Your task to perform on an android device: open app "Roku - Official Remote Control" (install if not already installed) and go to login screen Image 0: 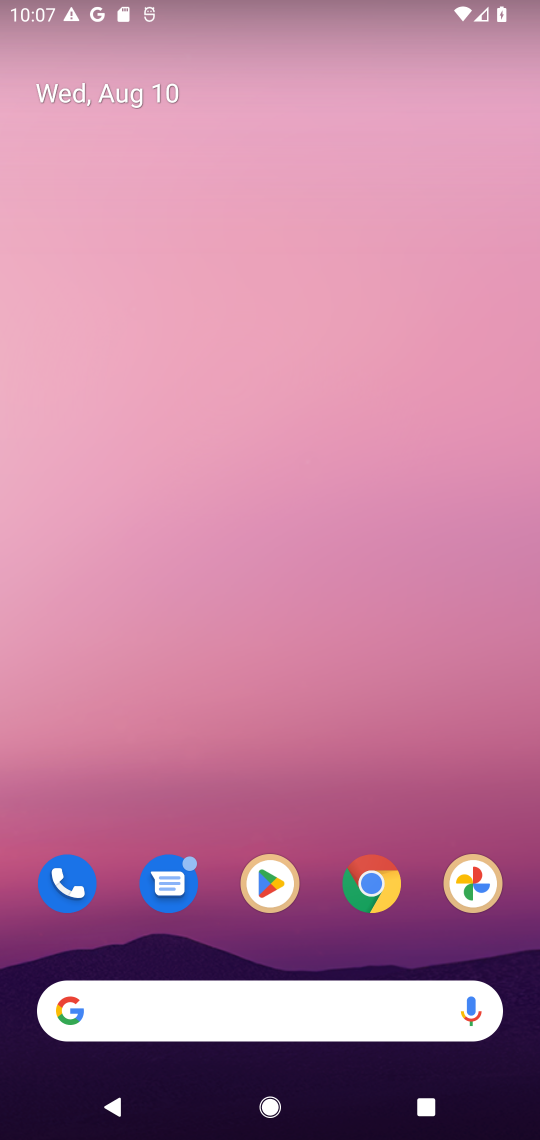
Step 0: press home button
Your task to perform on an android device: open app "Roku - Official Remote Control" (install if not already installed) and go to login screen Image 1: 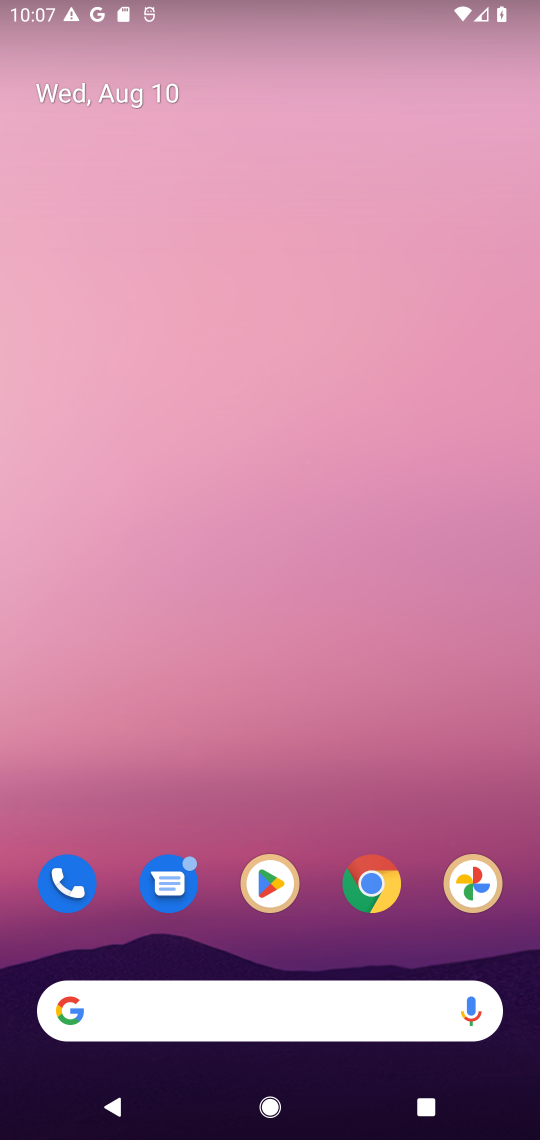
Step 1: drag from (404, 669) to (416, 71)
Your task to perform on an android device: open app "Roku - Official Remote Control" (install if not already installed) and go to login screen Image 2: 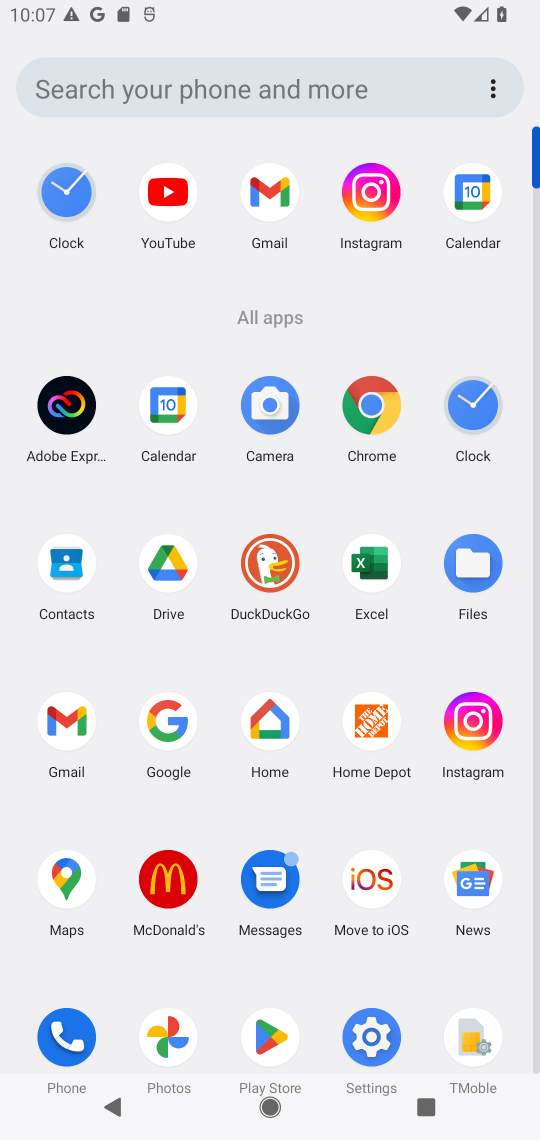
Step 2: click (265, 1026)
Your task to perform on an android device: open app "Roku - Official Remote Control" (install if not already installed) and go to login screen Image 3: 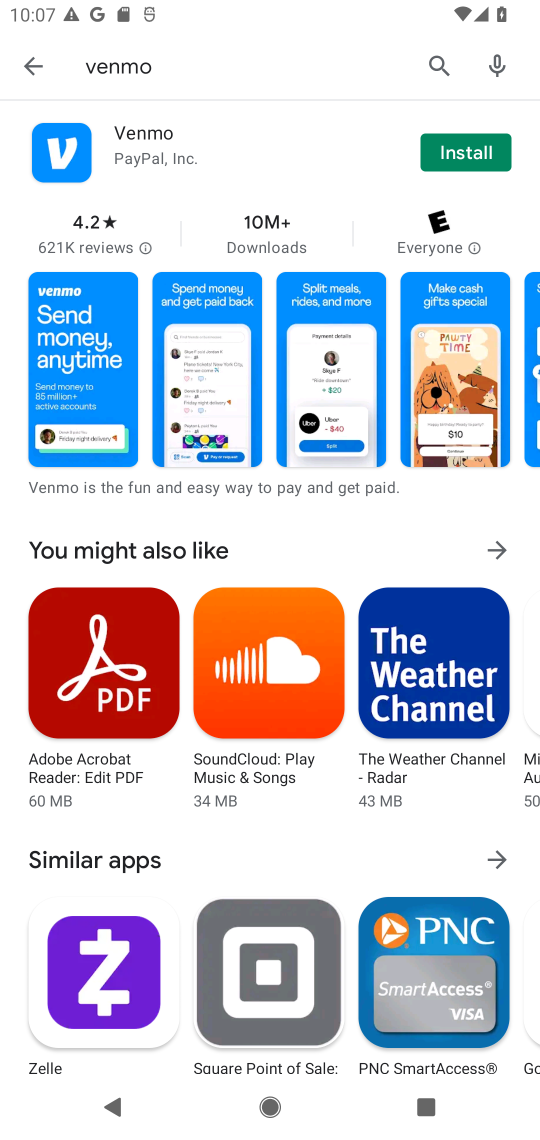
Step 3: click (435, 67)
Your task to perform on an android device: open app "Roku - Official Remote Control" (install if not already installed) and go to login screen Image 4: 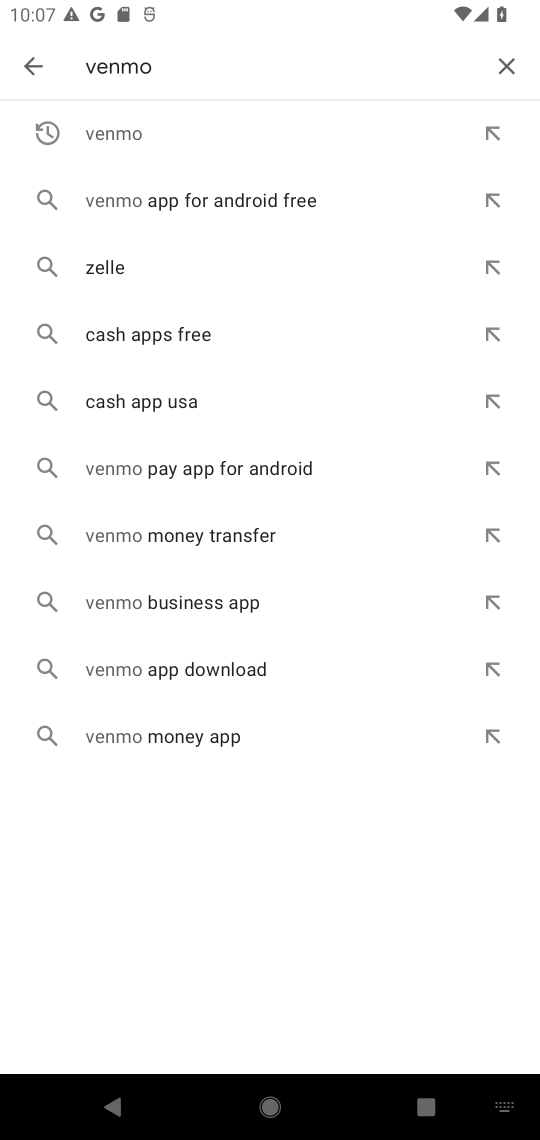
Step 4: click (509, 63)
Your task to perform on an android device: open app "Roku - Official Remote Control" (install if not already installed) and go to login screen Image 5: 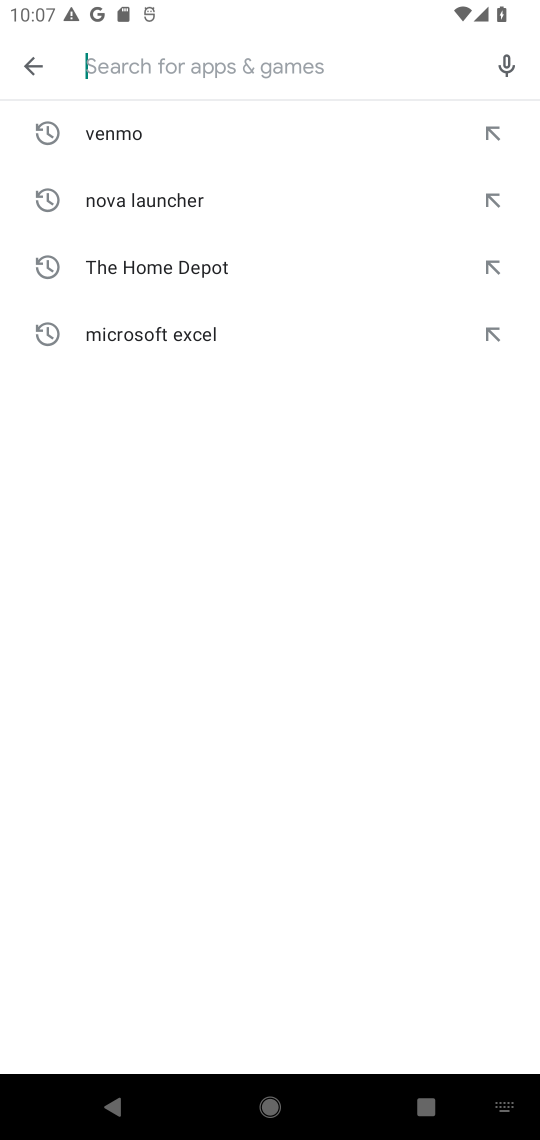
Step 5: press enter
Your task to perform on an android device: open app "Roku - Official Remote Control" (install if not already installed) and go to login screen Image 6: 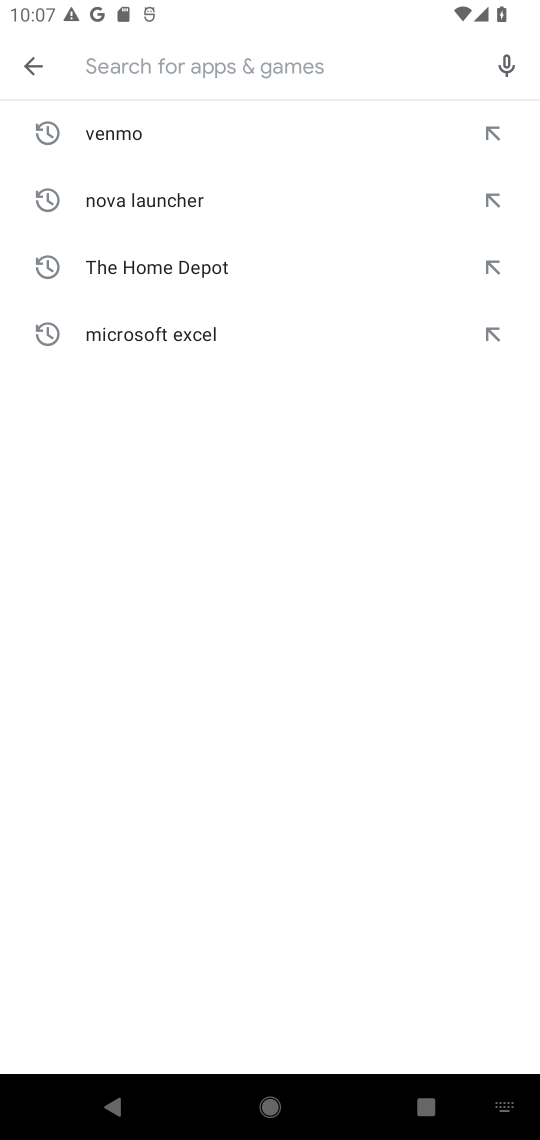
Step 6: type "Official Remote Control"
Your task to perform on an android device: open app "Roku - Official Remote Control" (install if not already installed) and go to login screen Image 7: 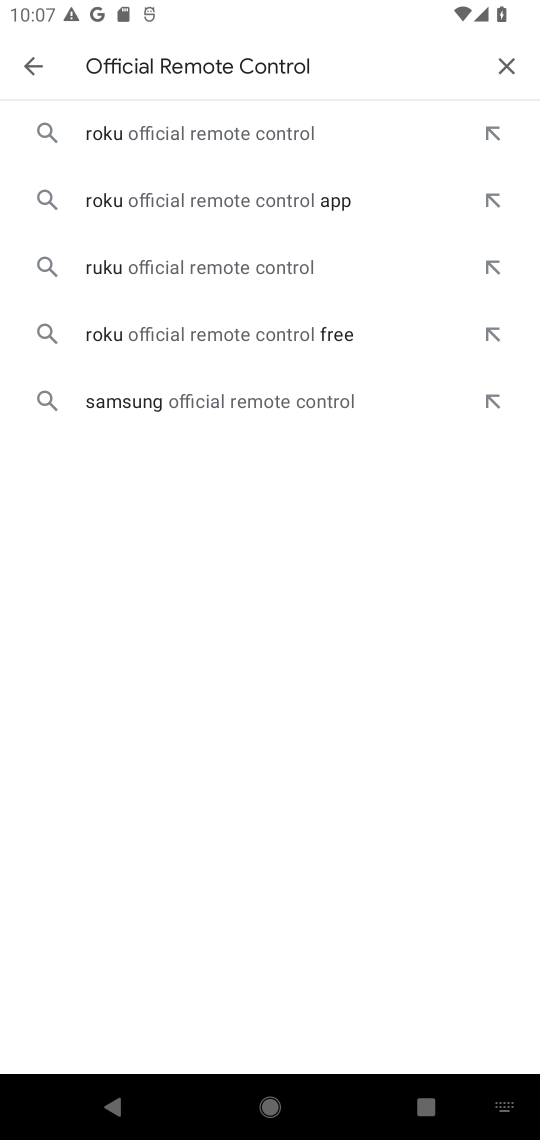
Step 7: click (235, 139)
Your task to perform on an android device: open app "Roku - Official Remote Control" (install if not already installed) and go to login screen Image 8: 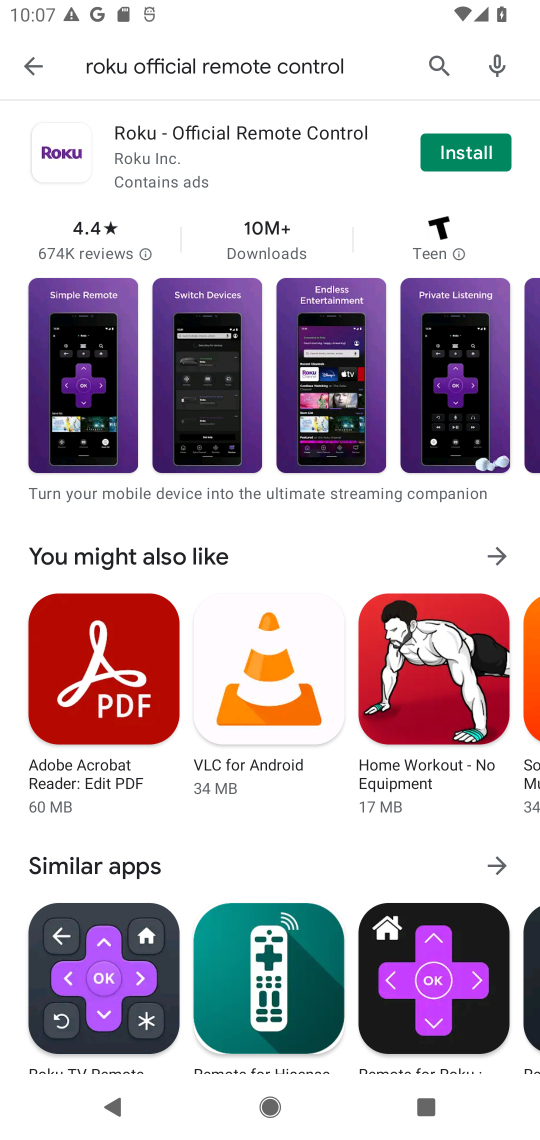
Step 8: click (474, 160)
Your task to perform on an android device: open app "Roku - Official Remote Control" (install if not already installed) and go to login screen Image 9: 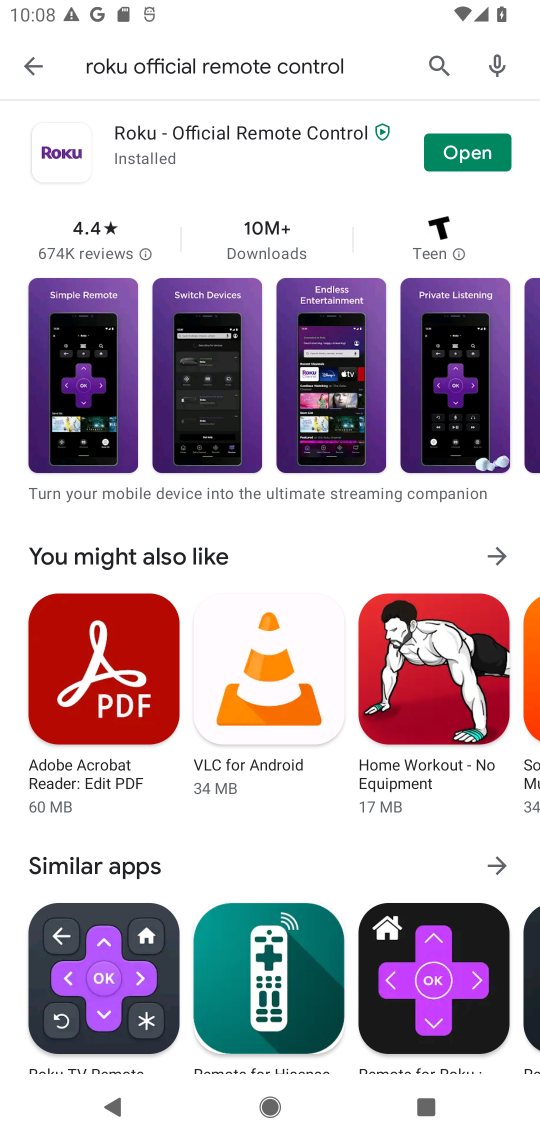
Step 9: click (453, 161)
Your task to perform on an android device: open app "Roku - Official Remote Control" (install if not already installed) and go to login screen Image 10: 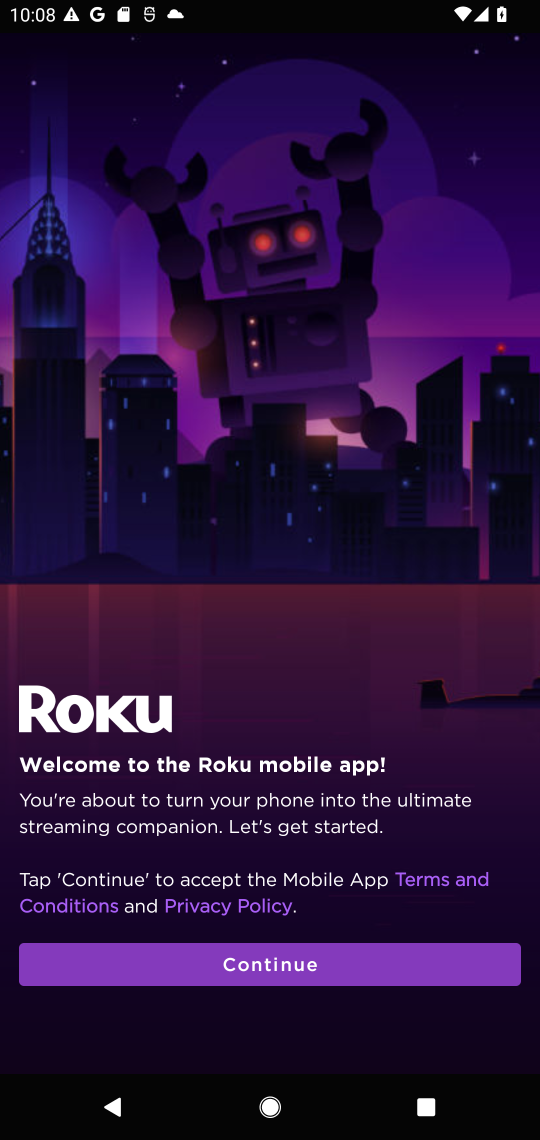
Step 10: click (384, 960)
Your task to perform on an android device: open app "Roku - Official Remote Control" (install if not already installed) and go to login screen Image 11: 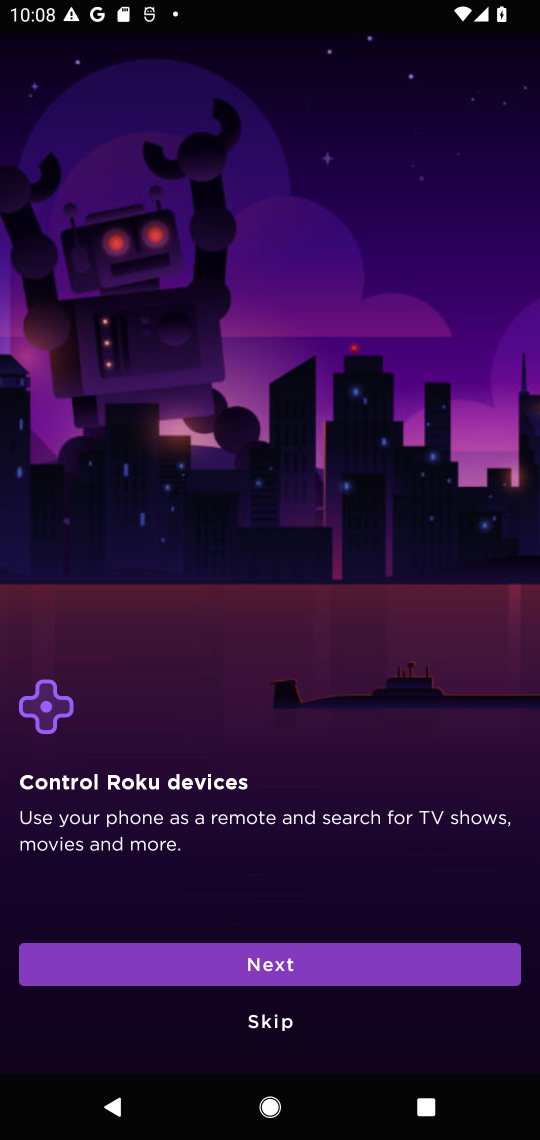
Step 11: click (327, 960)
Your task to perform on an android device: open app "Roku - Official Remote Control" (install if not already installed) and go to login screen Image 12: 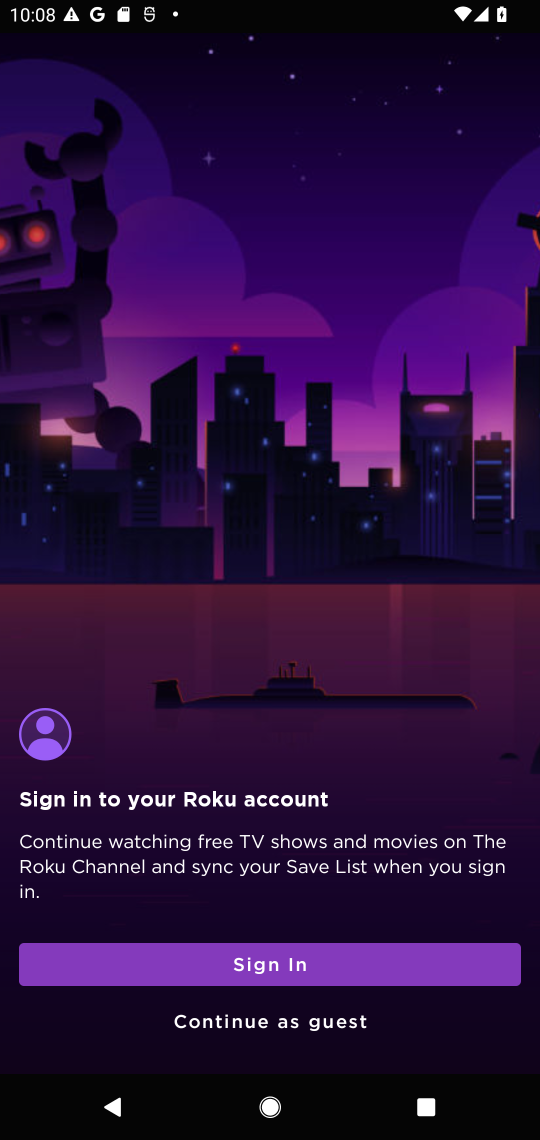
Step 12: click (321, 968)
Your task to perform on an android device: open app "Roku - Official Remote Control" (install if not already installed) and go to login screen Image 13: 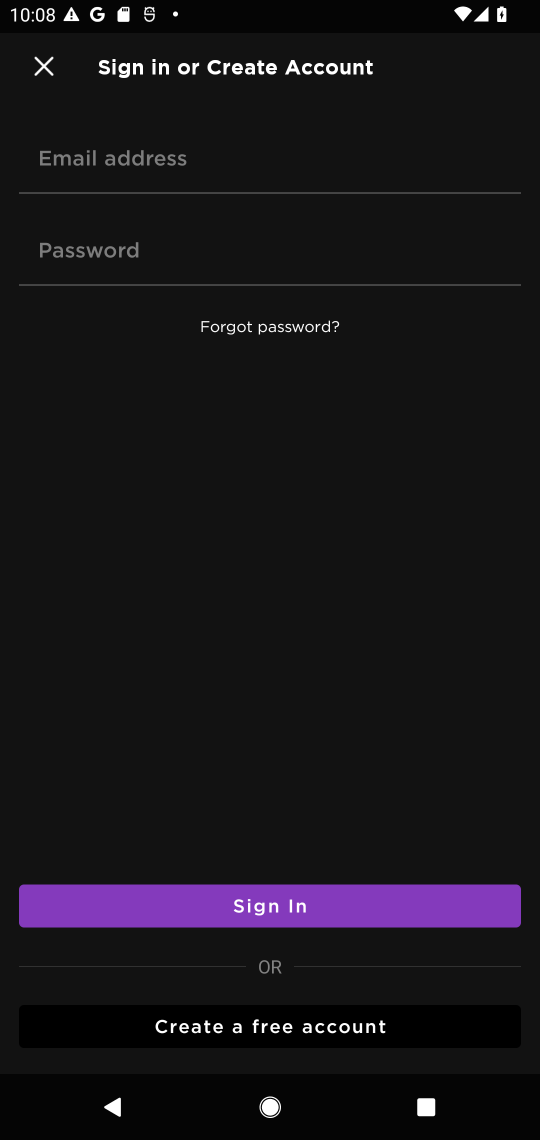
Step 13: task complete